Your task to perform on an android device: Go to Wikipedia Image 0: 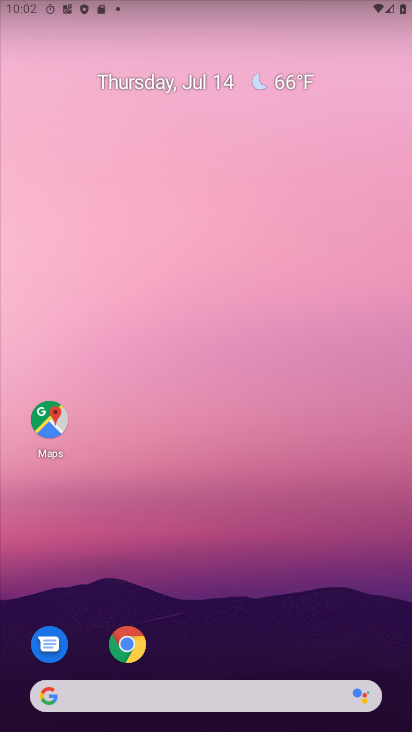
Step 0: drag from (287, 695) to (208, 116)
Your task to perform on an android device: Go to Wikipedia Image 1: 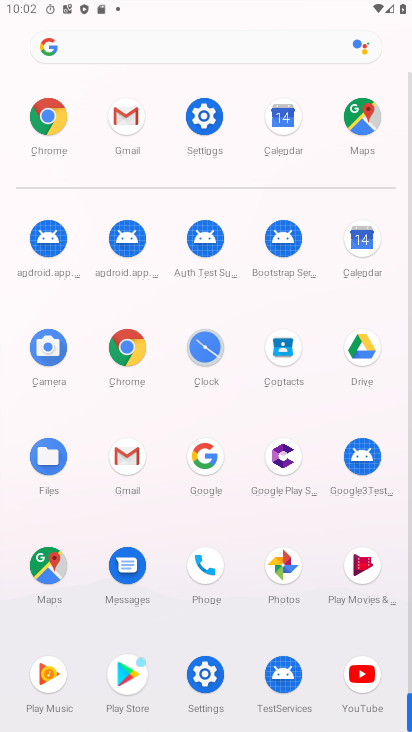
Step 1: click (39, 116)
Your task to perform on an android device: Go to Wikipedia Image 2: 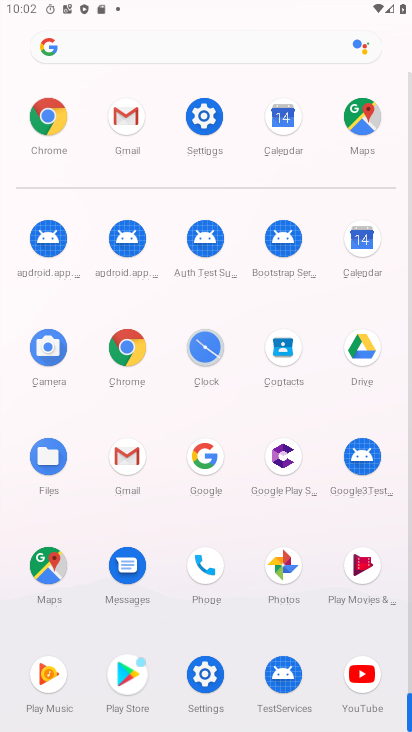
Step 2: click (40, 115)
Your task to perform on an android device: Go to Wikipedia Image 3: 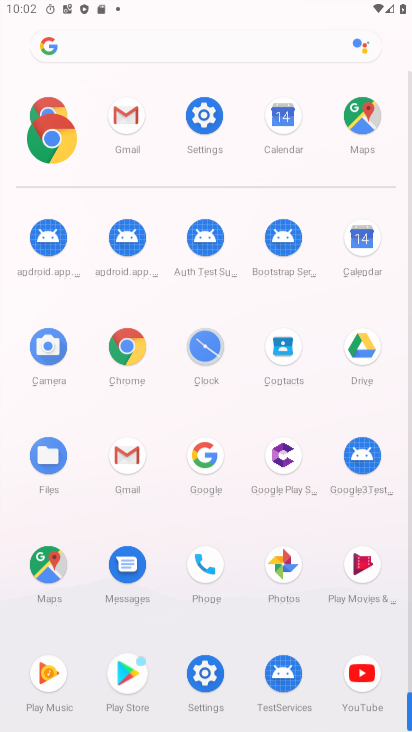
Step 3: click (42, 113)
Your task to perform on an android device: Go to Wikipedia Image 4: 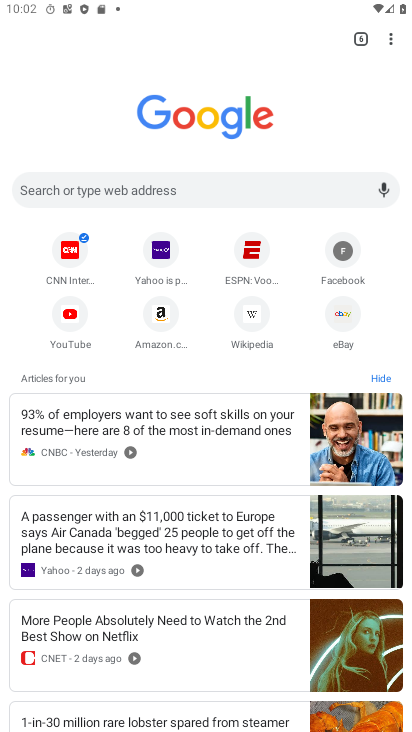
Step 4: click (244, 329)
Your task to perform on an android device: Go to Wikipedia Image 5: 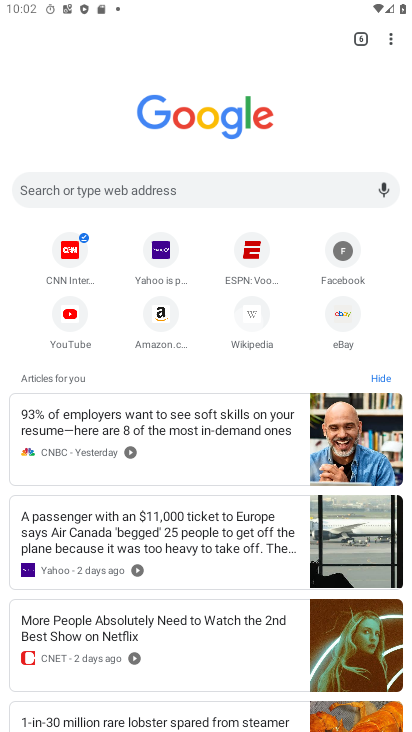
Step 5: click (244, 329)
Your task to perform on an android device: Go to Wikipedia Image 6: 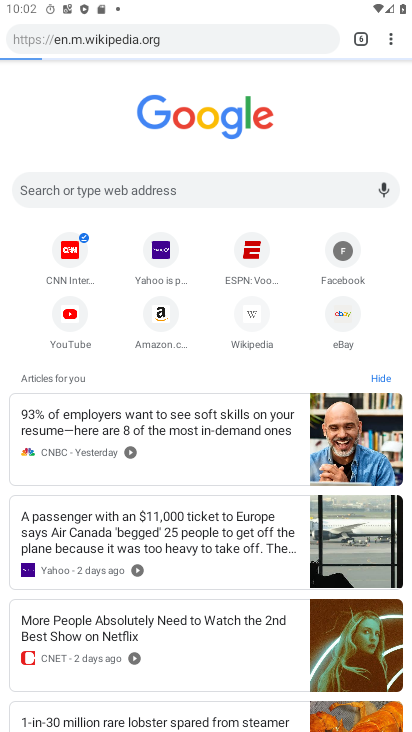
Step 6: click (247, 328)
Your task to perform on an android device: Go to Wikipedia Image 7: 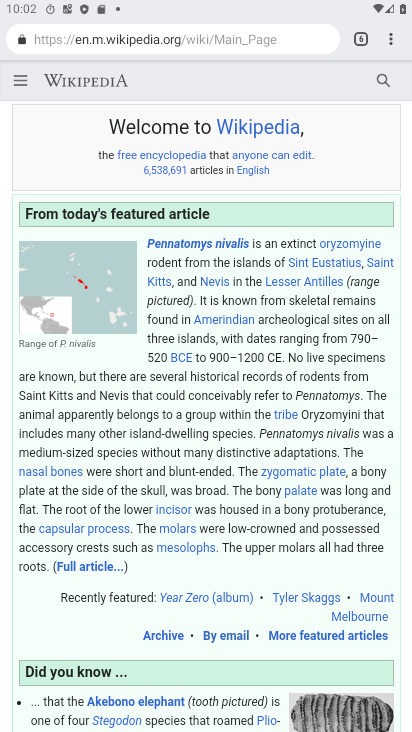
Step 7: task complete